Your task to perform on an android device: Open network settings Image 0: 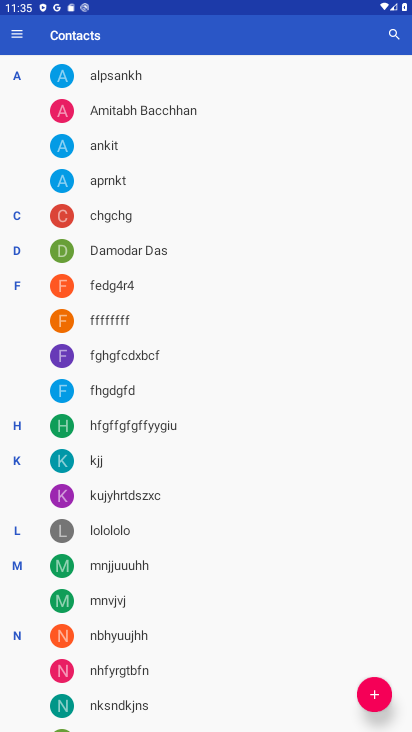
Step 0: press home button
Your task to perform on an android device: Open network settings Image 1: 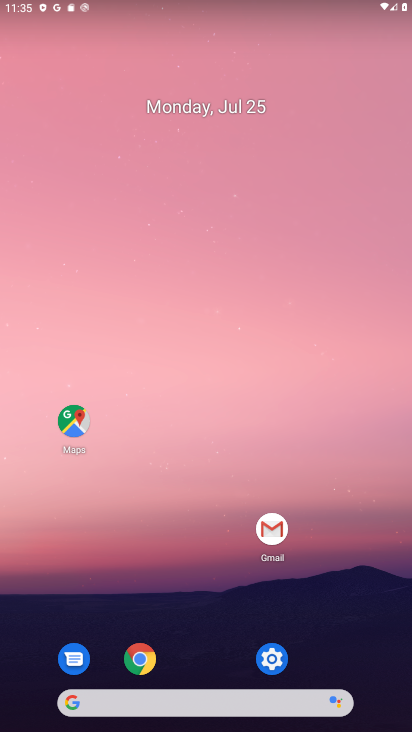
Step 1: click (271, 652)
Your task to perform on an android device: Open network settings Image 2: 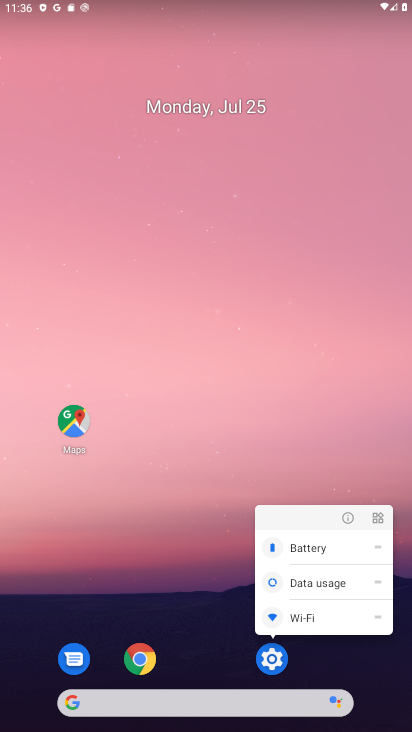
Step 2: click (271, 648)
Your task to perform on an android device: Open network settings Image 3: 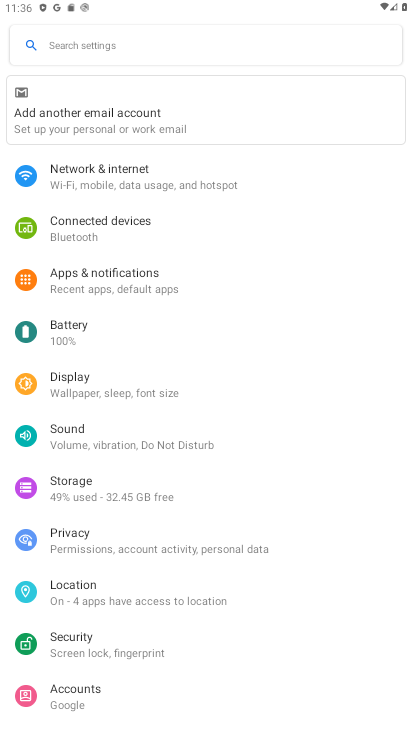
Step 3: click (105, 169)
Your task to perform on an android device: Open network settings Image 4: 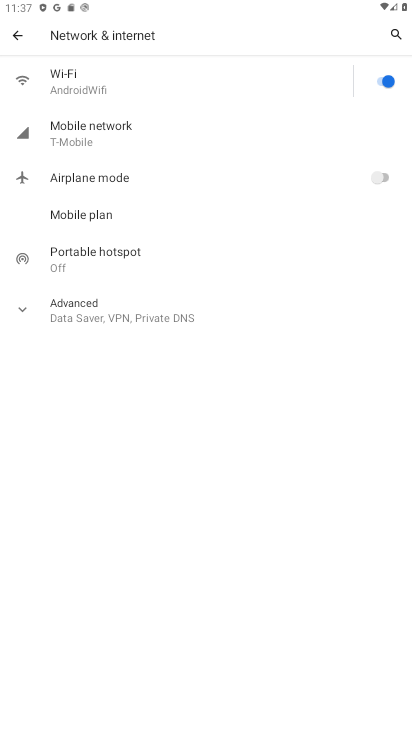
Step 4: task complete